Your task to perform on an android device: Open CNN.com Image 0: 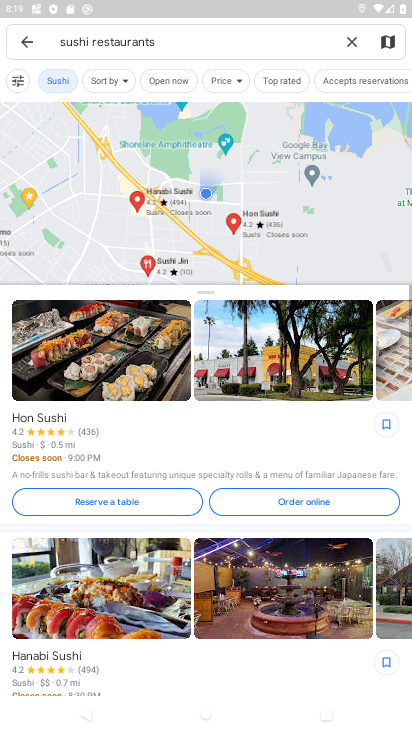
Step 0: press home button
Your task to perform on an android device: Open CNN.com Image 1: 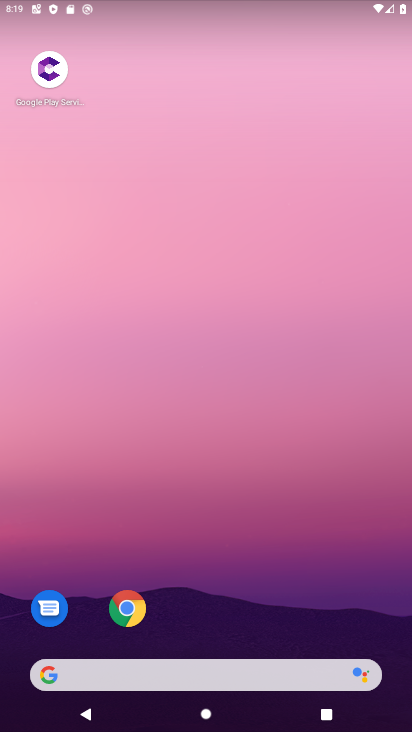
Step 1: click (129, 599)
Your task to perform on an android device: Open CNN.com Image 2: 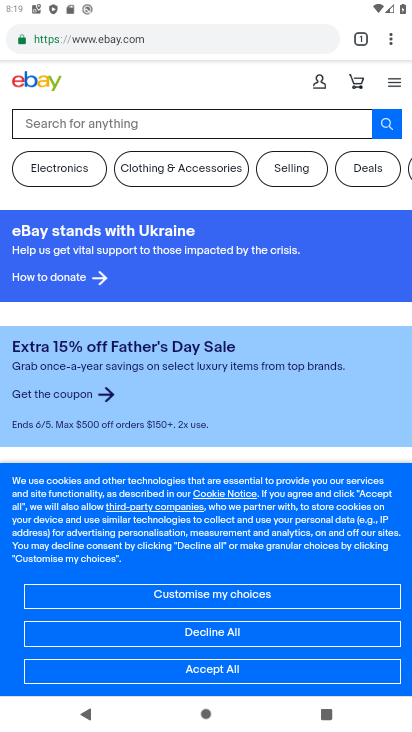
Step 2: click (373, 41)
Your task to perform on an android device: Open CNN.com Image 3: 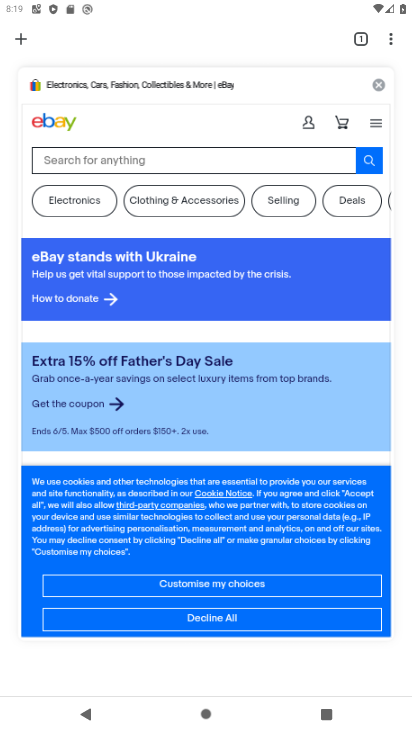
Step 3: click (22, 39)
Your task to perform on an android device: Open CNN.com Image 4: 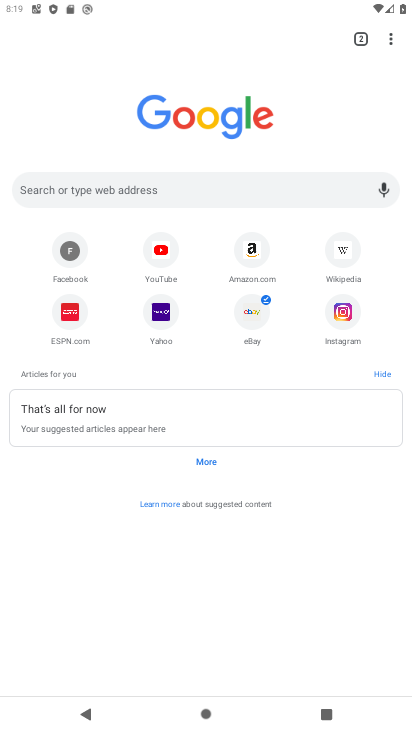
Step 4: click (129, 181)
Your task to perform on an android device: Open CNN.com Image 5: 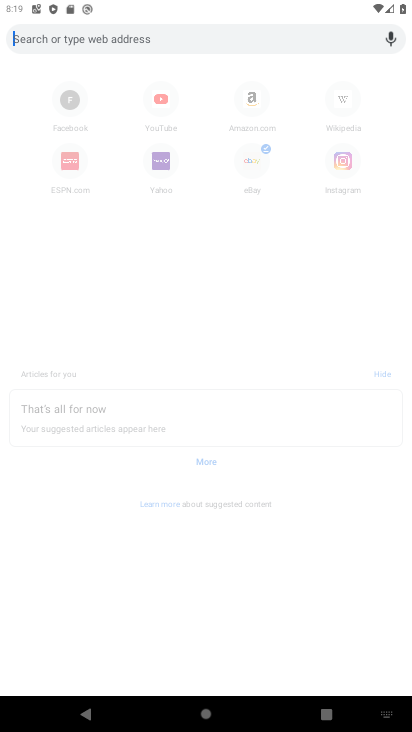
Step 5: type "cnn"
Your task to perform on an android device: Open CNN.com Image 6: 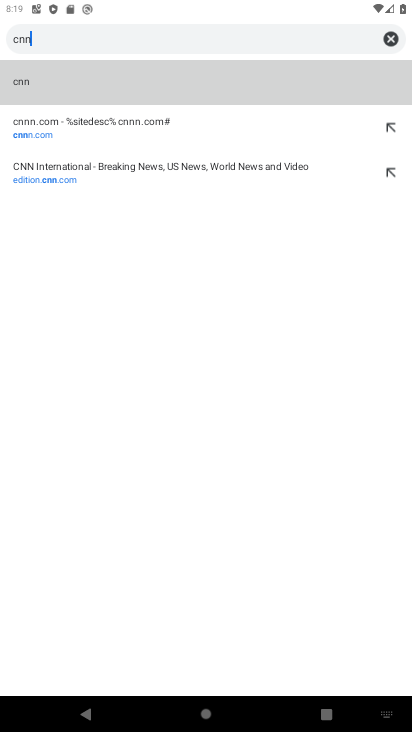
Step 6: click (66, 144)
Your task to perform on an android device: Open CNN.com Image 7: 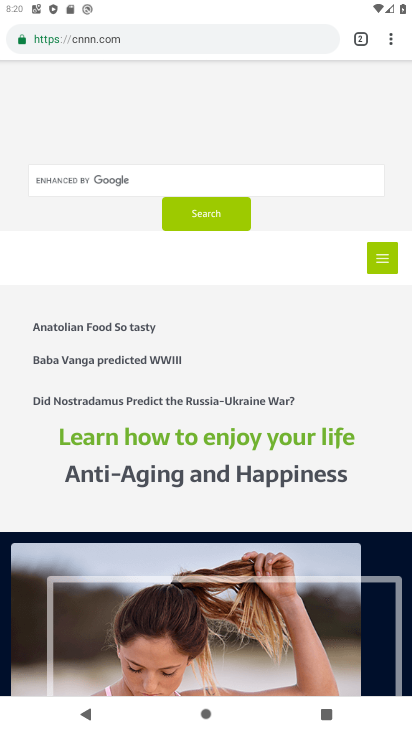
Step 7: task complete